Your task to perform on an android device: change text size in settings app Image 0: 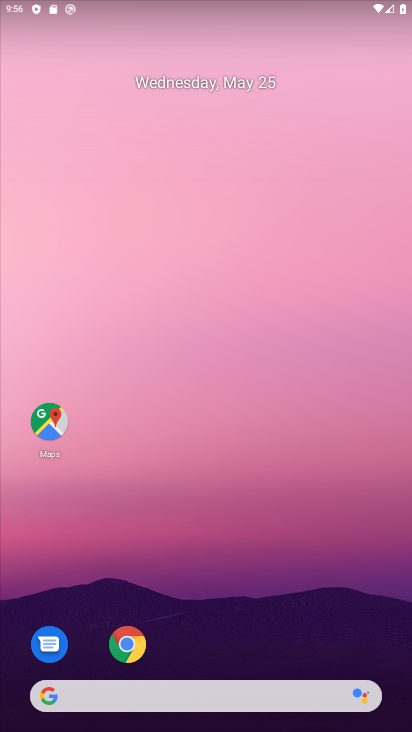
Step 0: drag from (236, 601) to (266, 54)
Your task to perform on an android device: change text size in settings app Image 1: 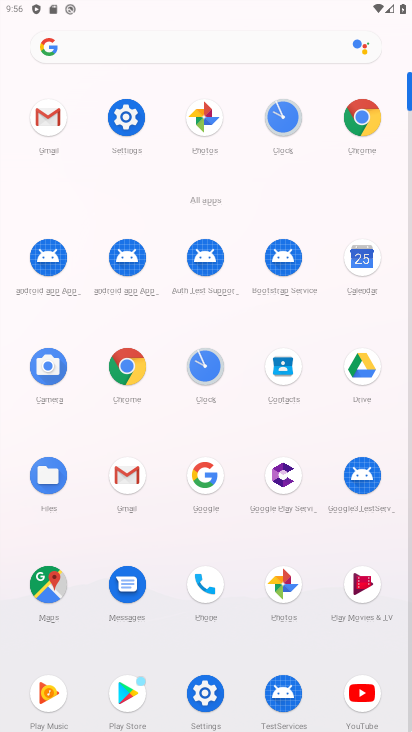
Step 1: click (213, 682)
Your task to perform on an android device: change text size in settings app Image 2: 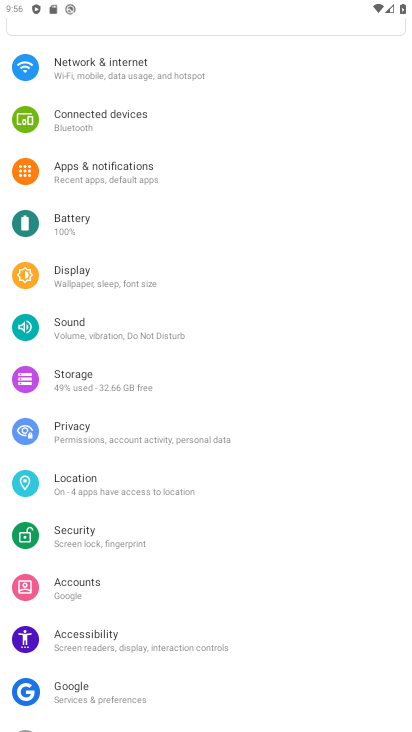
Step 2: click (101, 269)
Your task to perform on an android device: change text size in settings app Image 3: 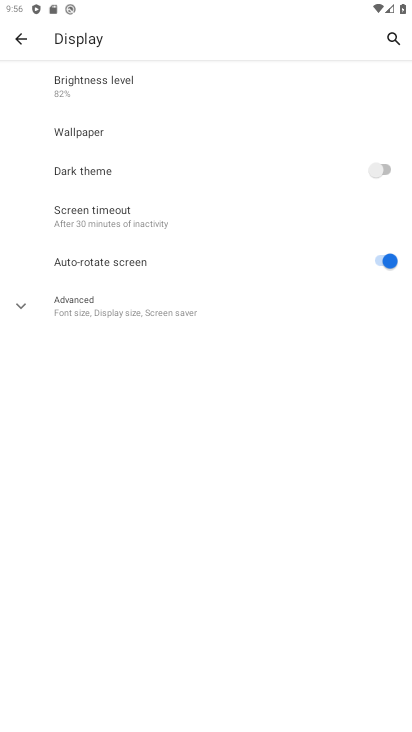
Step 3: click (126, 307)
Your task to perform on an android device: change text size in settings app Image 4: 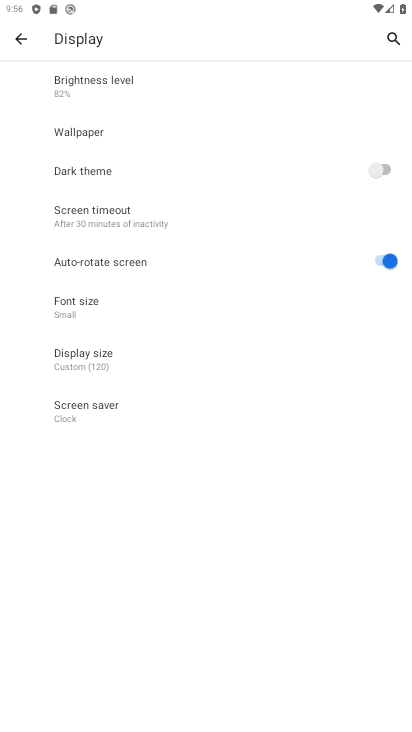
Step 4: click (111, 307)
Your task to perform on an android device: change text size in settings app Image 5: 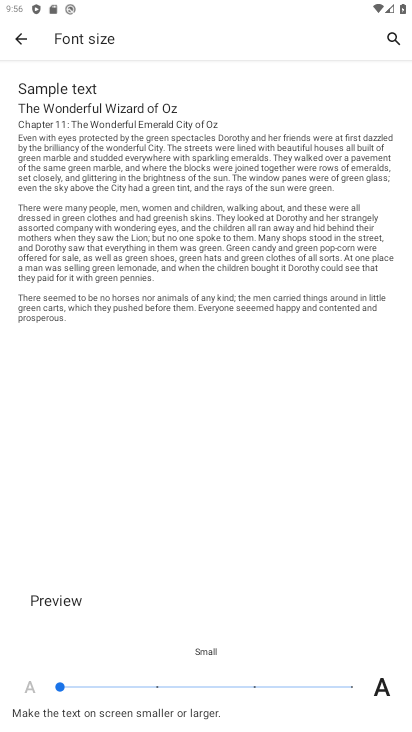
Step 5: click (159, 684)
Your task to perform on an android device: change text size in settings app Image 6: 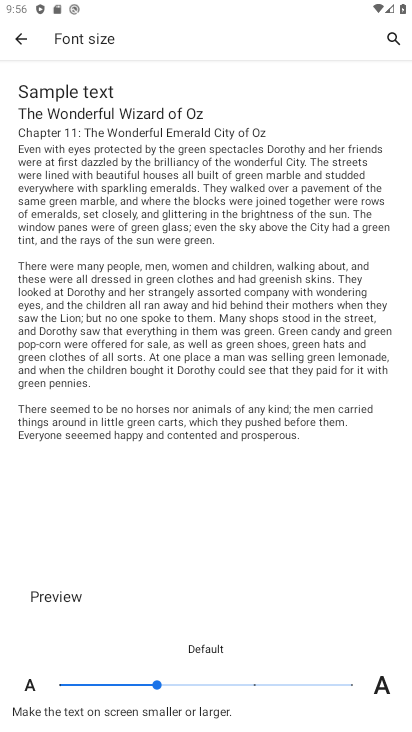
Step 6: task complete